Your task to perform on an android device: turn on improve location accuracy Image 0: 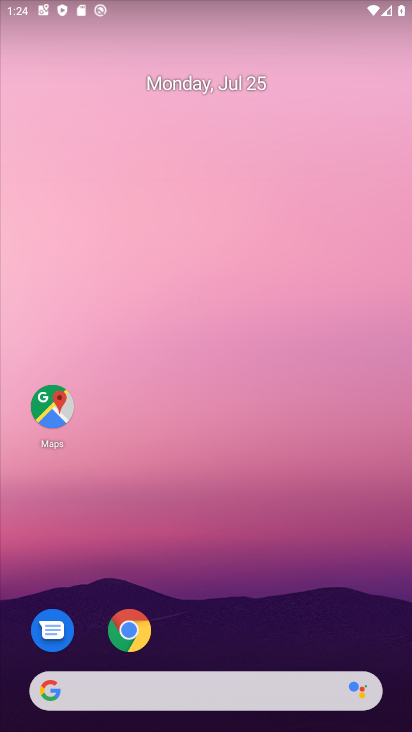
Step 0: task complete